Your task to perform on an android device: open app "Adobe Acrobat Reader" Image 0: 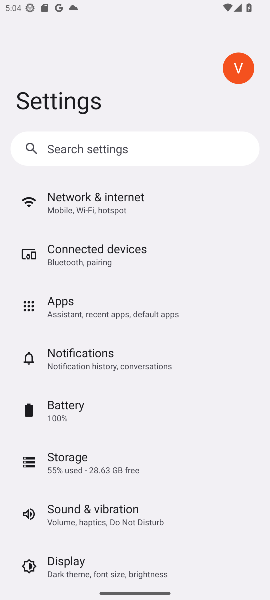
Step 0: press home button
Your task to perform on an android device: open app "Adobe Acrobat Reader" Image 1: 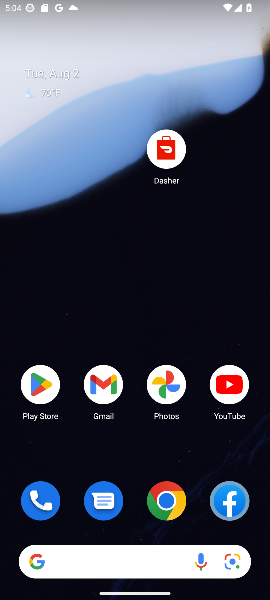
Step 1: click (46, 385)
Your task to perform on an android device: open app "Adobe Acrobat Reader" Image 2: 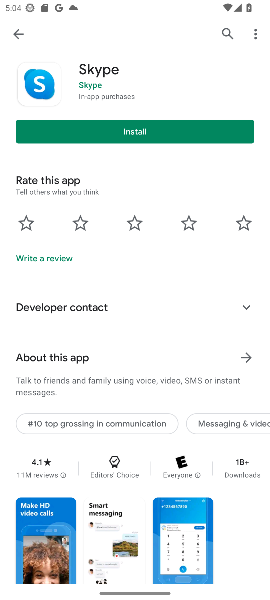
Step 2: click (225, 35)
Your task to perform on an android device: open app "Adobe Acrobat Reader" Image 3: 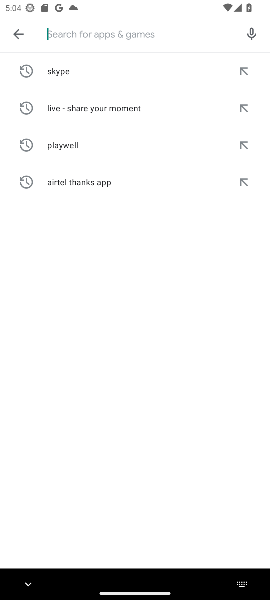
Step 3: type "Adobe Acrobat Reader"
Your task to perform on an android device: open app "Adobe Acrobat Reader" Image 4: 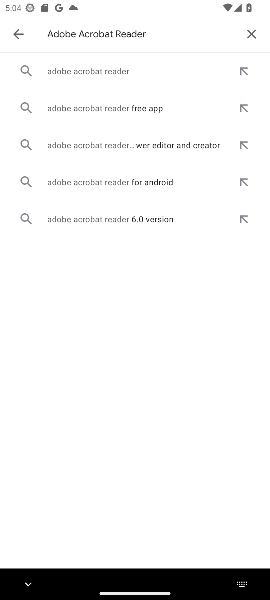
Step 4: click (104, 69)
Your task to perform on an android device: open app "Adobe Acrobat Reader" Image 5: 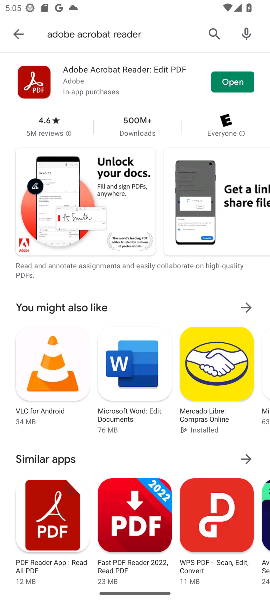
Step 5: click (238, 80)
Your task to perform on an android device: open app "Adobe Acrobat Reader" Image 6: 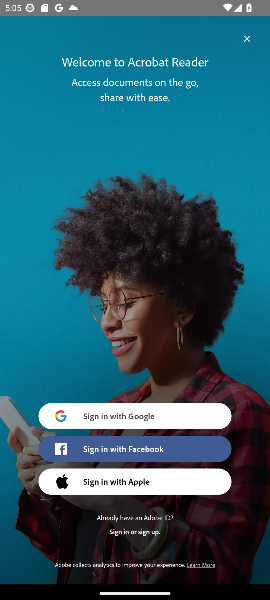
Step 6: task complete